Your task to perform on an android device: Open sound settings Image 0: 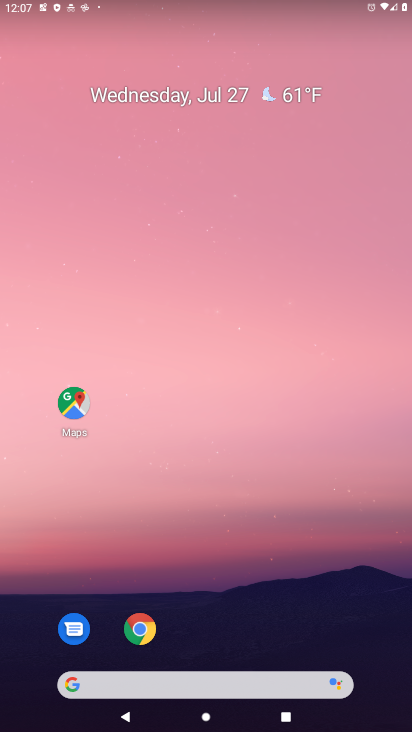
Step 0: drag from (280, 663) to (280, 217)
Your task to perform on an android device: Open sound settings Image 1: 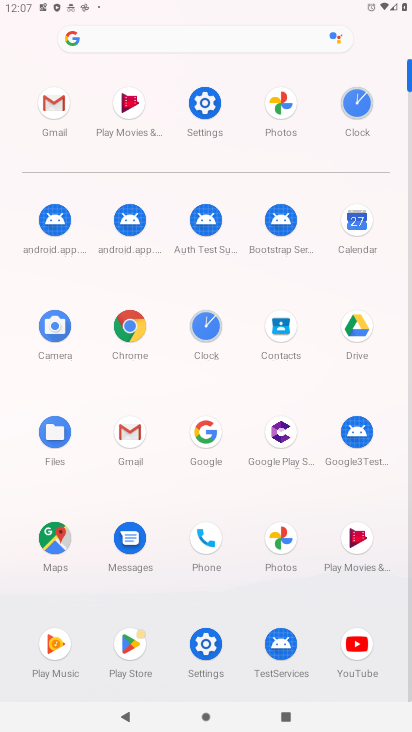
Step 1: click (210, 105)
Your task to perform on an android device: Open sound settings Image 2: 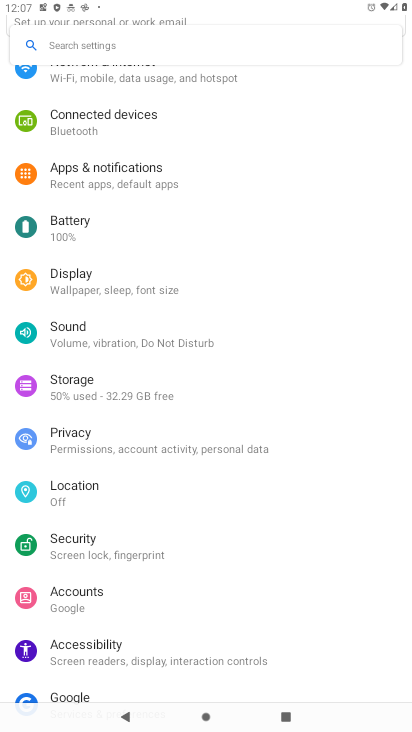
Step 2: click (82, 340)
Your task to perform on an android device: Open sound settings Image 3: 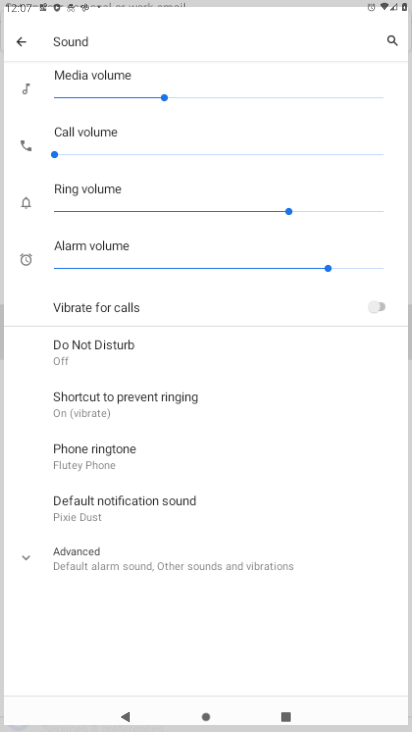
Step 3: task complete